Your task to perform on an android device: Open my contact list Image 0: 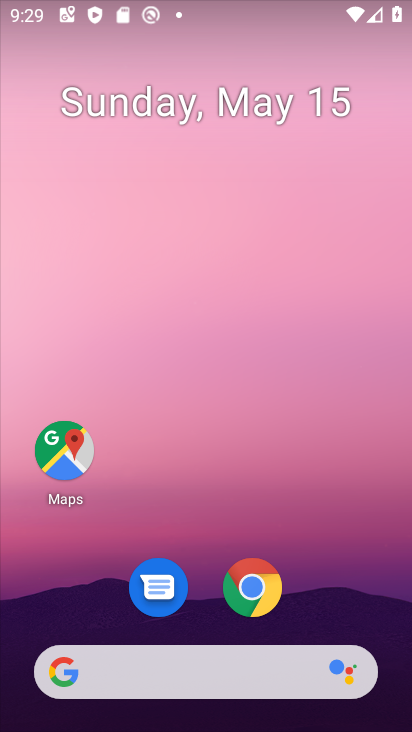
Step 0: drag from (385, 637) to (280, 125)
Your task to perform on an android device: Open my contact list Image 1: 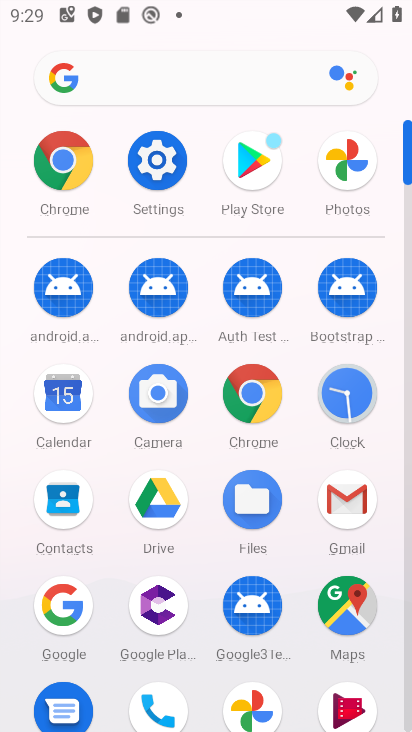
Step 1: click (84, 488)
Your task to perform on an android device: Open my contact list Image 2: 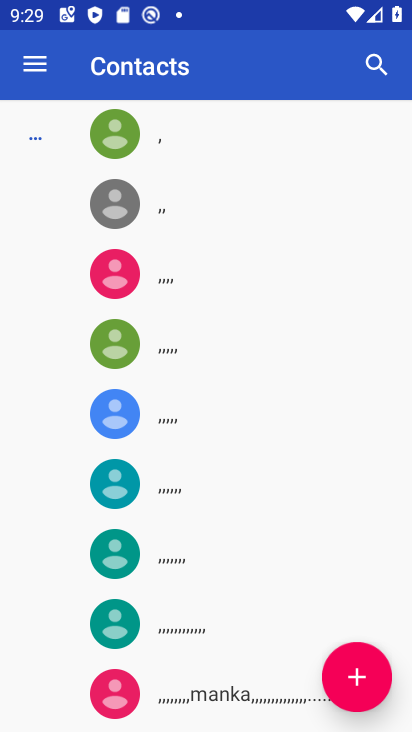
Step 2: task complete